Your task to perform on an android device: open app "LinkedIn" (install if not already installed) and go to login screen Image 0: 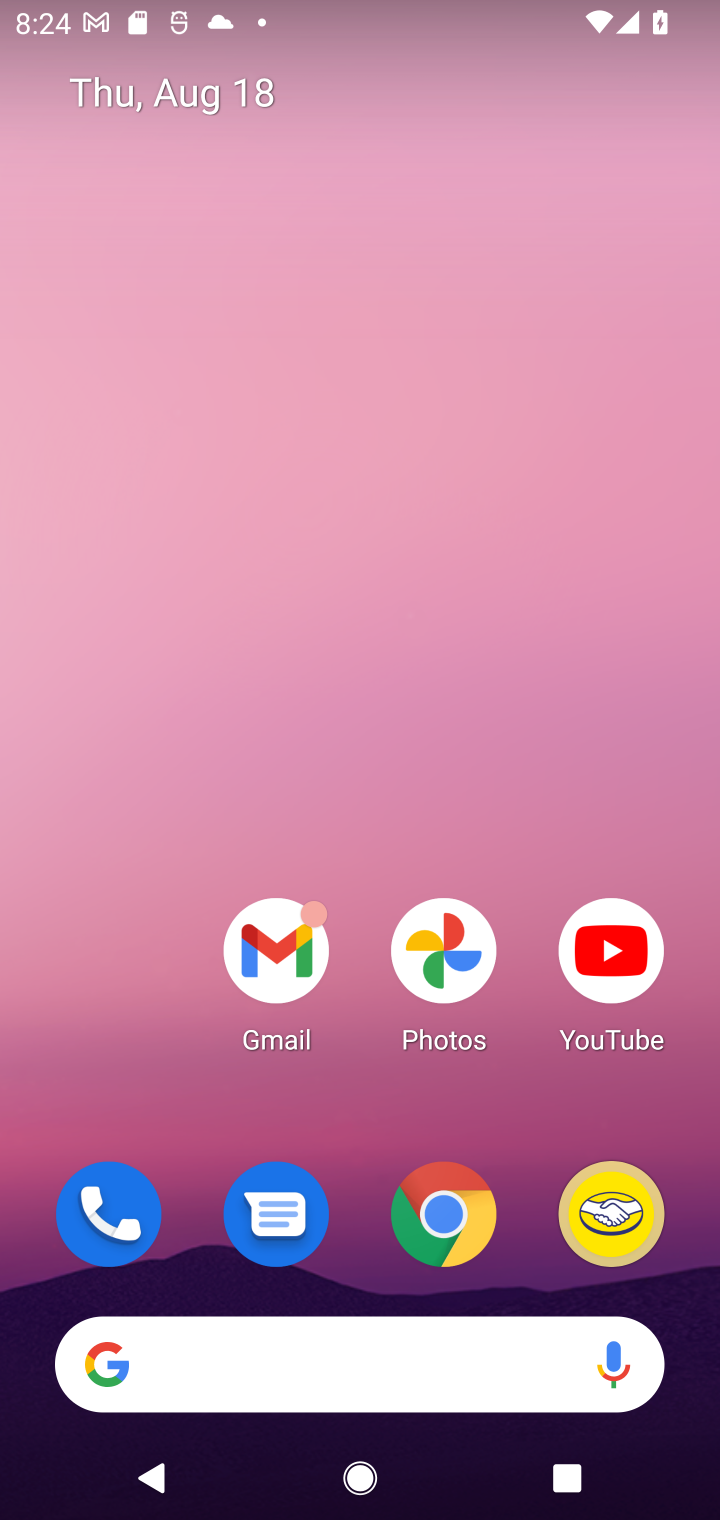
Step 0: drag from (169, 1084) to (360, 28)
Your task to perform on an android device: open app "LinkedIn" (install if not already installed) and go to login screen Image 1: 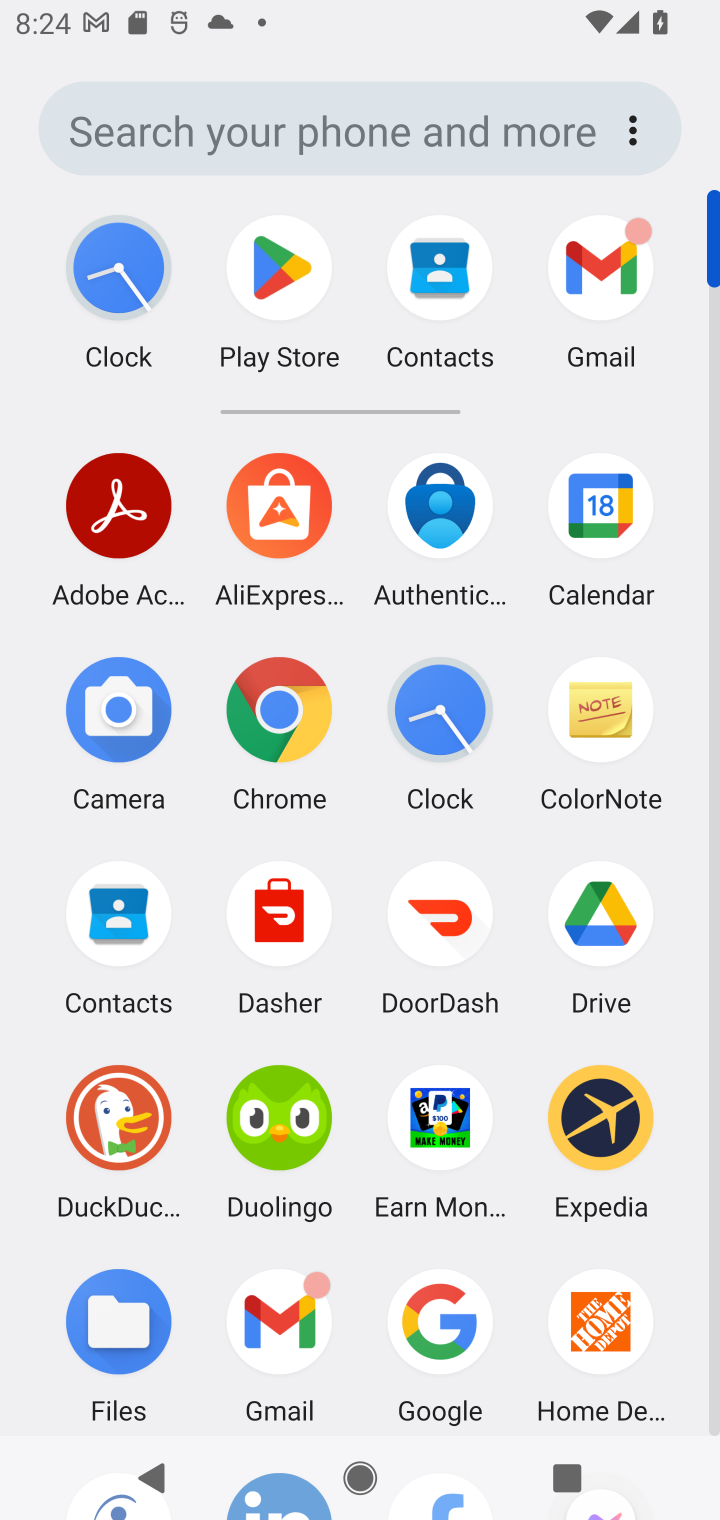
Step 1: click (273, 261)
Your task to perform on an android device: open app "LinkedIn" (install if not already installed) and go to login screen Image 2: 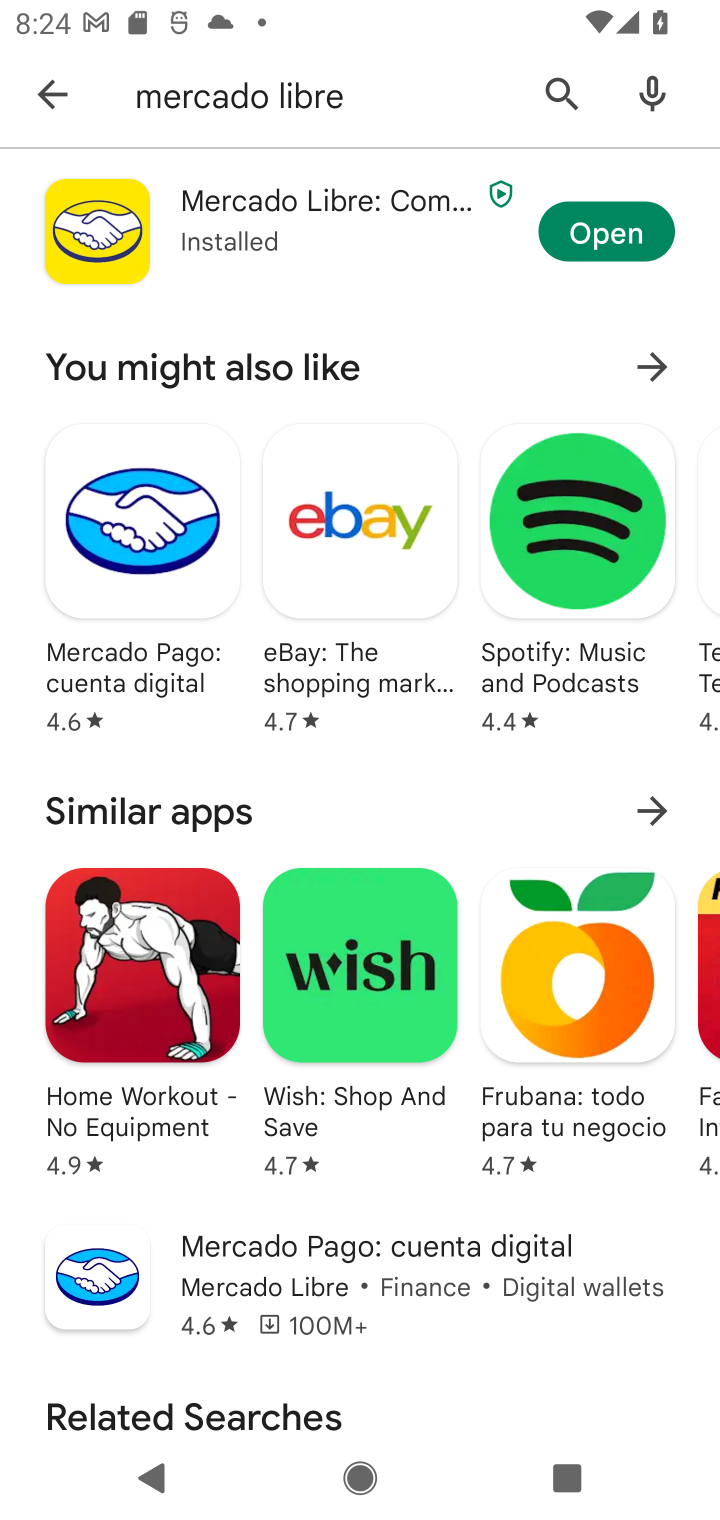
Step 2: click (569, 89)
Your task to perform on an android device: open app "LinkedIn" (install if not already installed) and go to login screen Image 3: 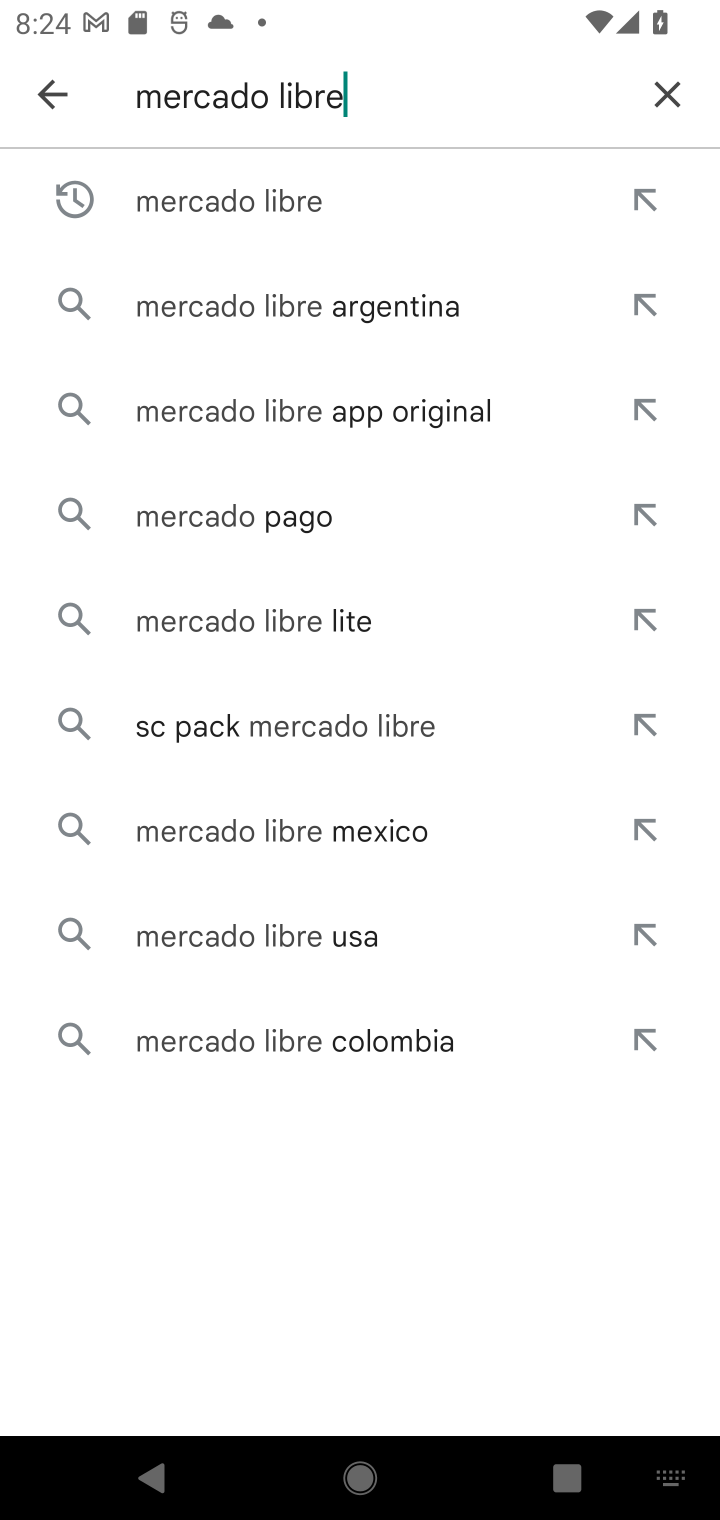
Step 3: click (683, 94)
Your task to perform on an android device: open app "LinkedIn" (install if not already installed) and go to login screen Image 4: 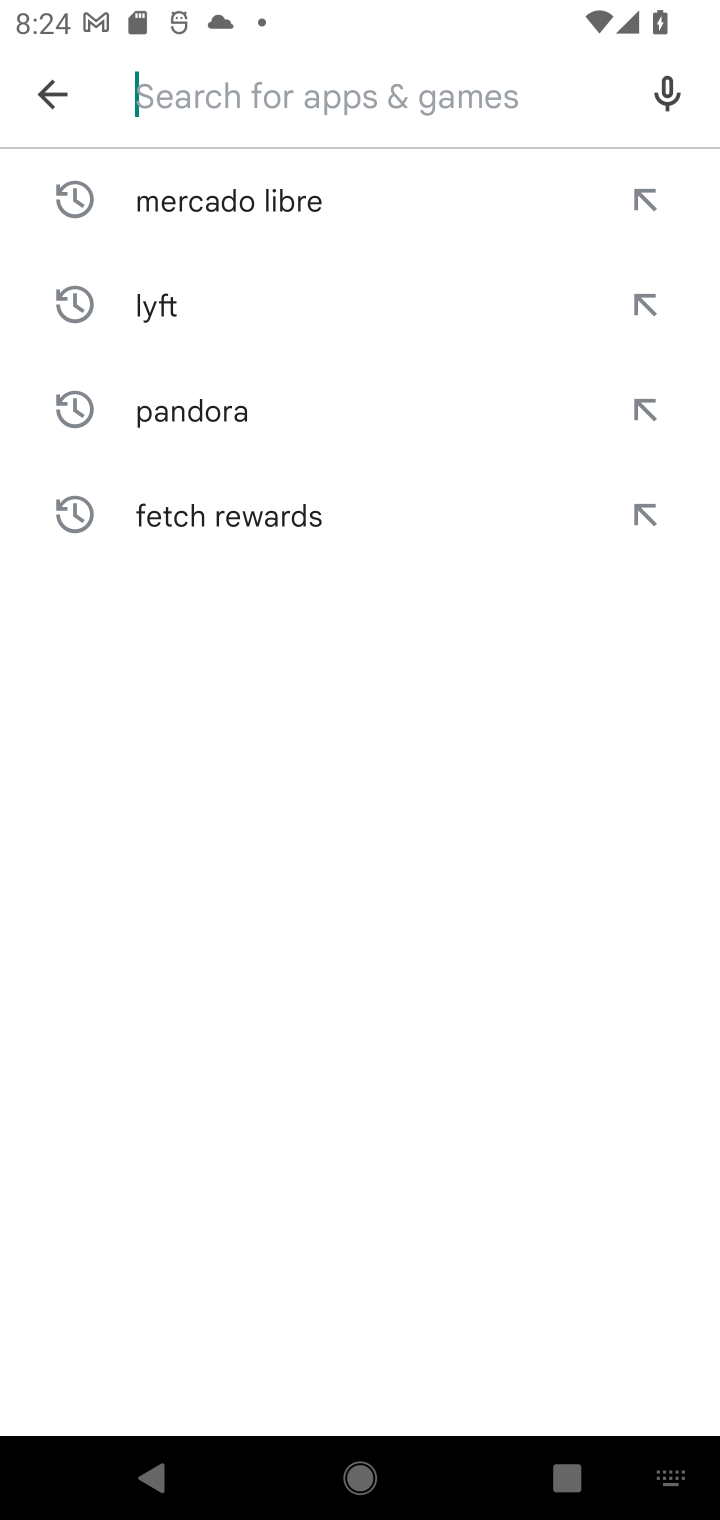
Step 4: click (214, 103)
Your task to perform on an android device: open app "LinkedIn" (install if not already installed) and go to login screen Image 5: 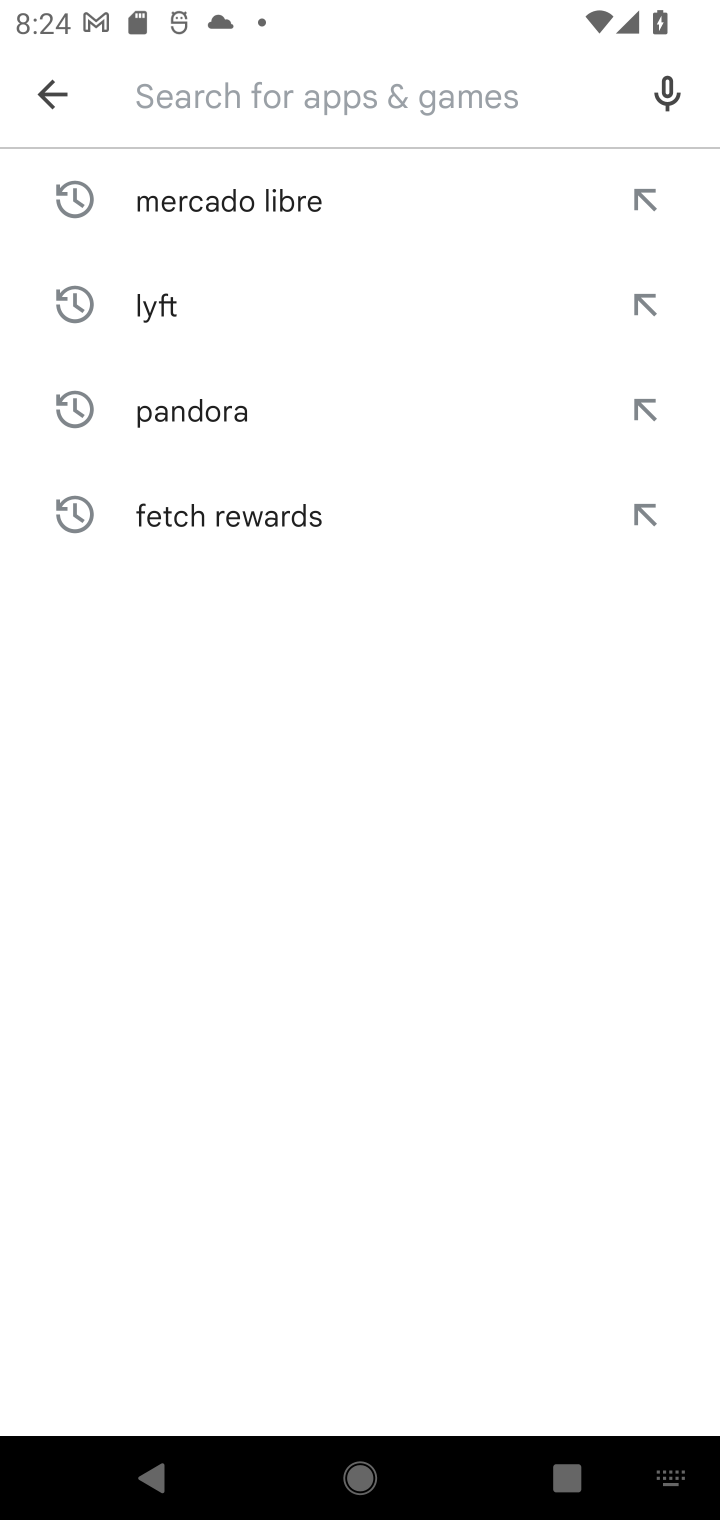
Step 5: type "linkedln"
Your task to perform on an android device: open app "LinkedIn" (install if not already installed) and go to login screen Image 6: 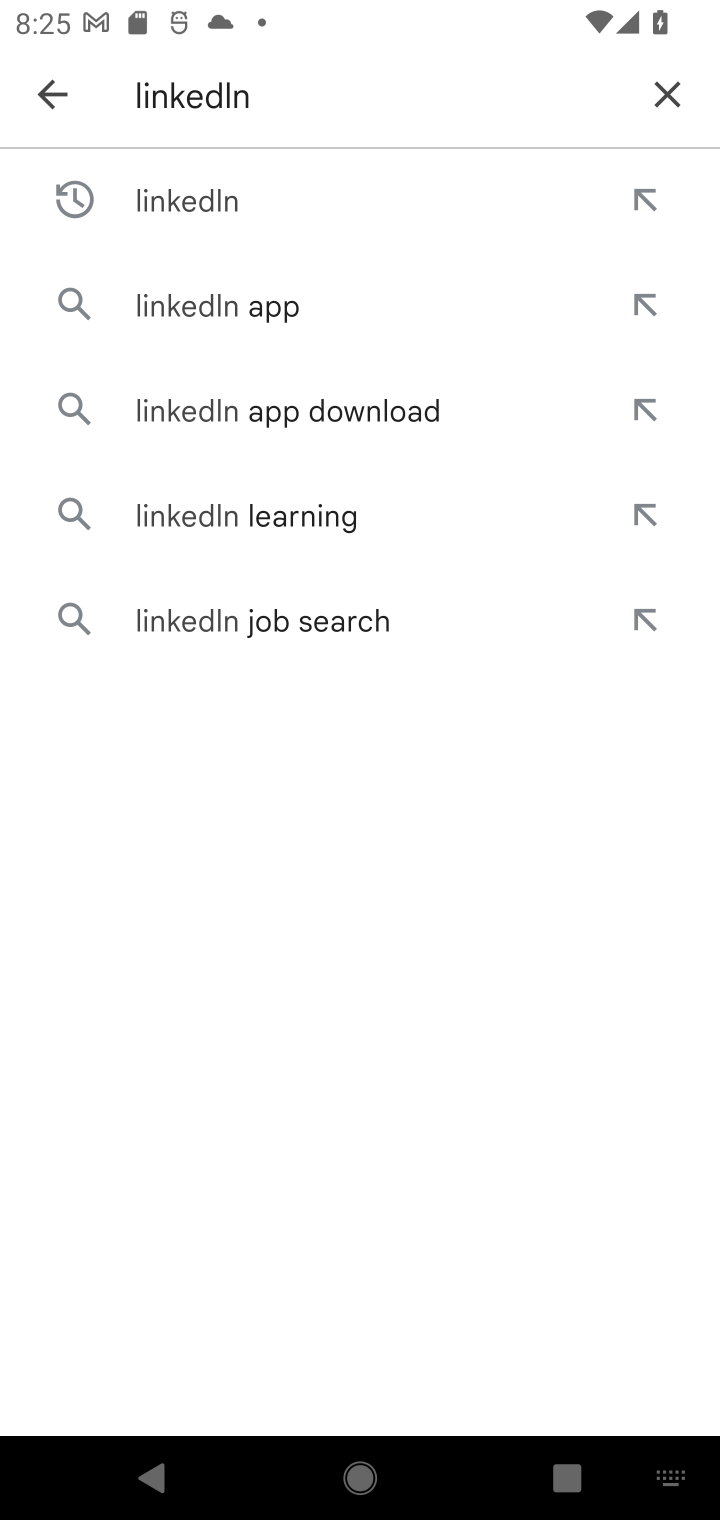
Step 6: click (282, 198)
Your task to perform on an android device: open app "LinkedIn" (install if not already installed) and go to login screen Image 7: 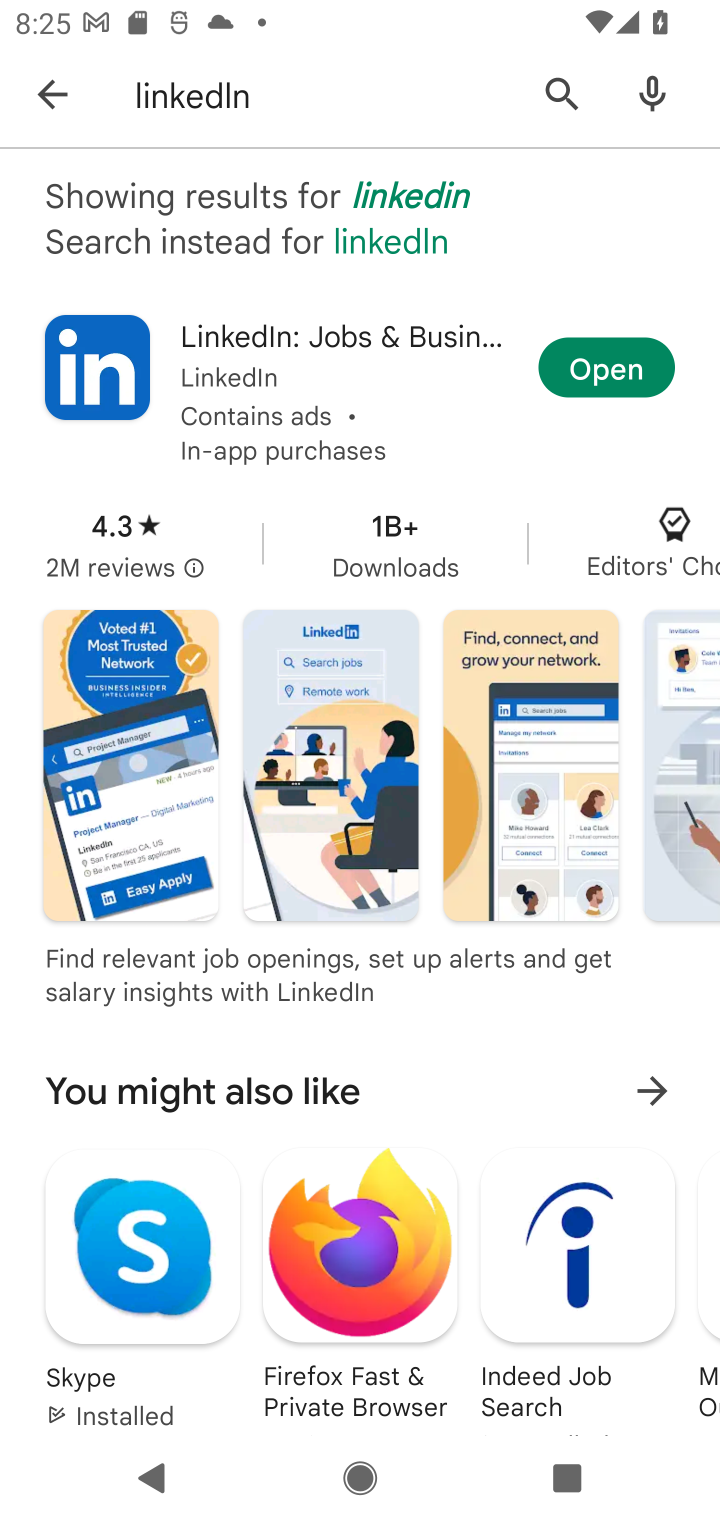
Step 7: click (601, 369)
Your task to perform on an android device: open app "LinkedIn" (install if not already installed) and go to login screen Image 8: 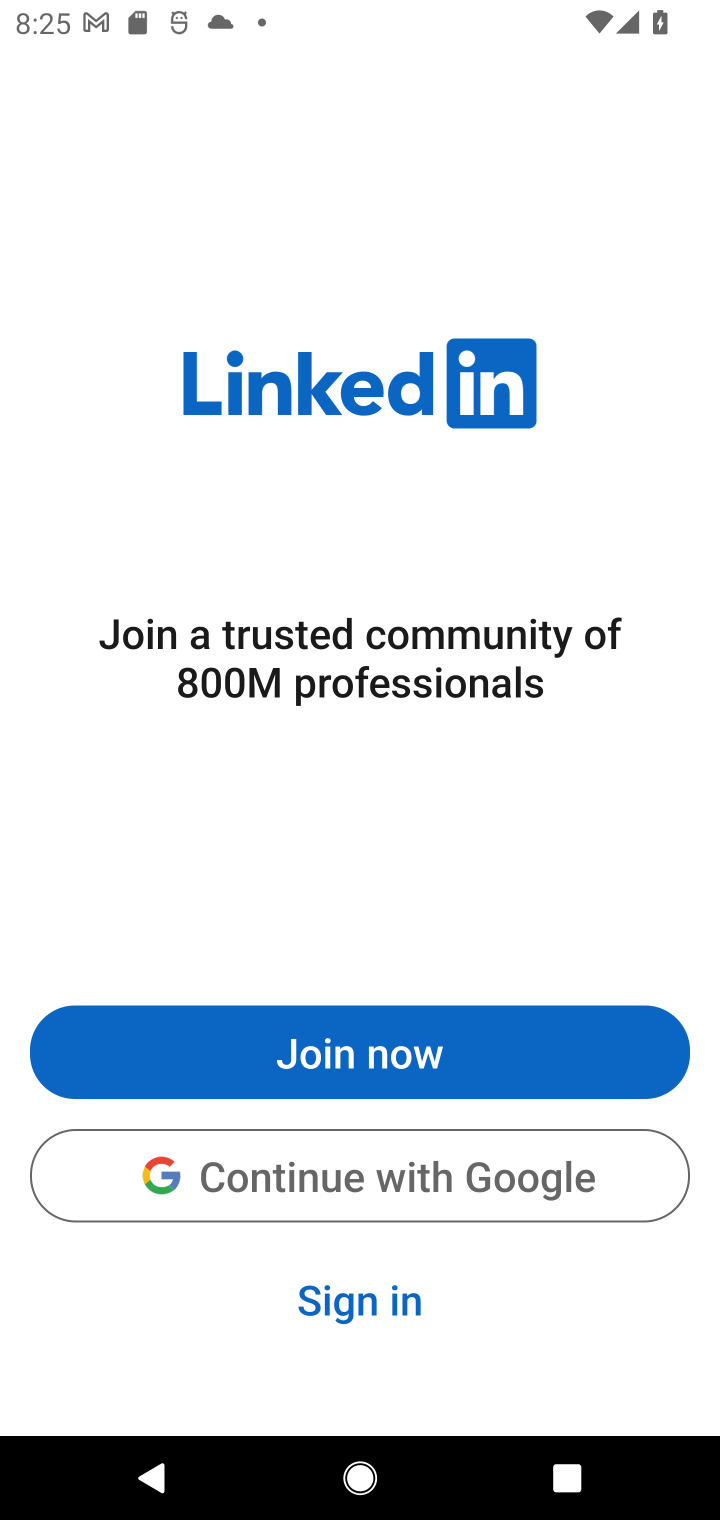
Step 8: click (384, 1312)
Your task to perform on an android device: open app "LinkedIn" (install if not already installed) and go to login screen Image 9: 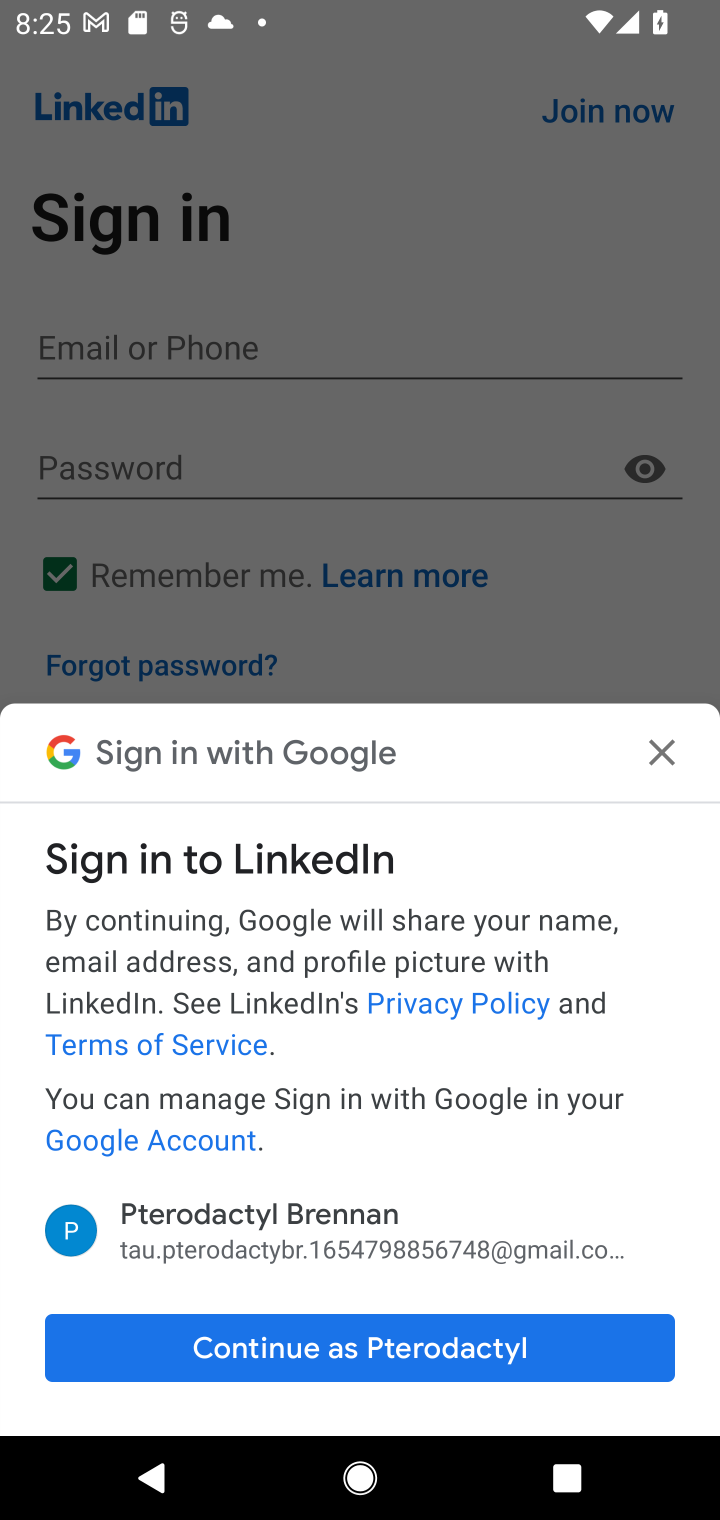
Step 9: task complete